Your task to perform on an android device: Clear the cart on target. Add "usb-b" to the cart on target, then select checkout. Image 0: 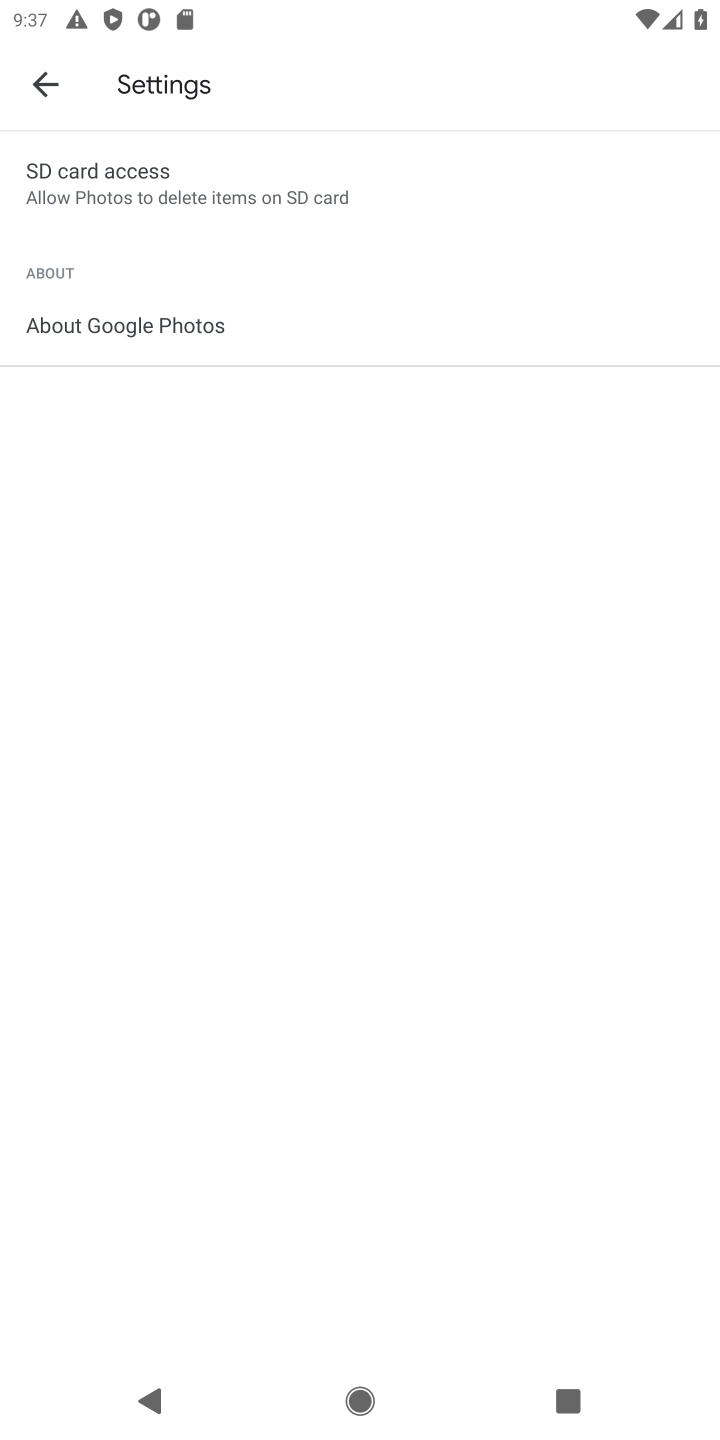
Step 0: press back button
Your task to perform on an android device: Clear the cart on target. Add "usb-b" to the cart on target, then select checkout. Image 1: 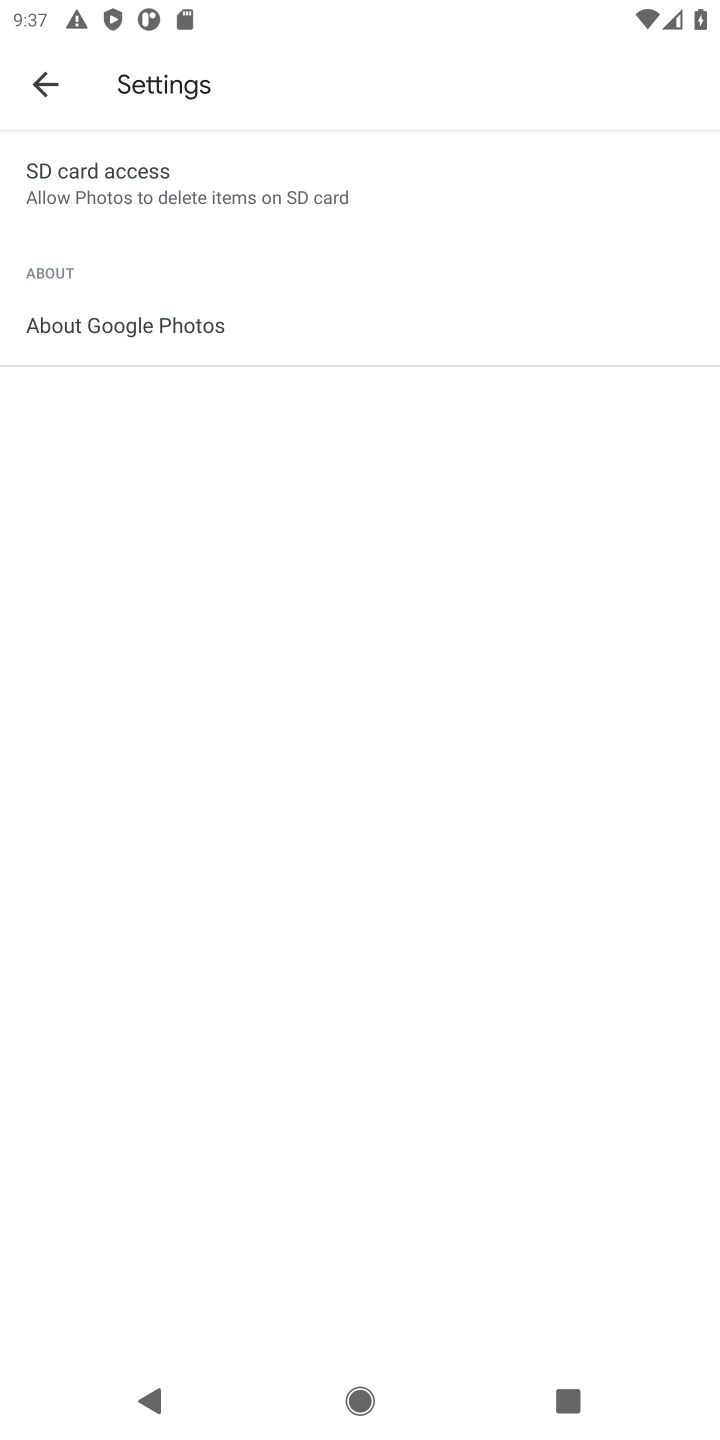
Step 1: press home button
Your task to perform on an android device: Clear the cart on target. Add "usb-b" to the cart on target, then select checkout. Image 2: 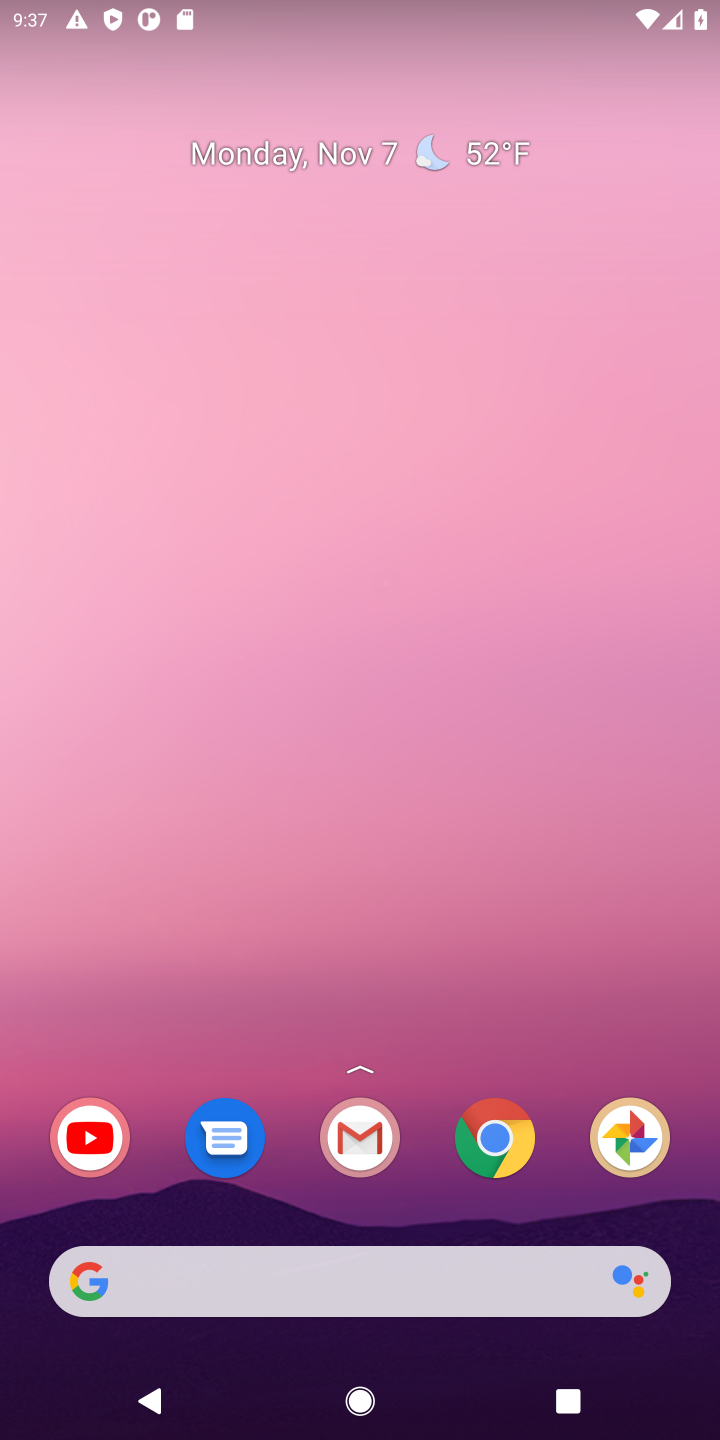
Step 2: click (511, 1145)
Your task to perform on an android device: Clear the cart on target. Add "usb-b" to the cart on target, then select checkout. Image 3: 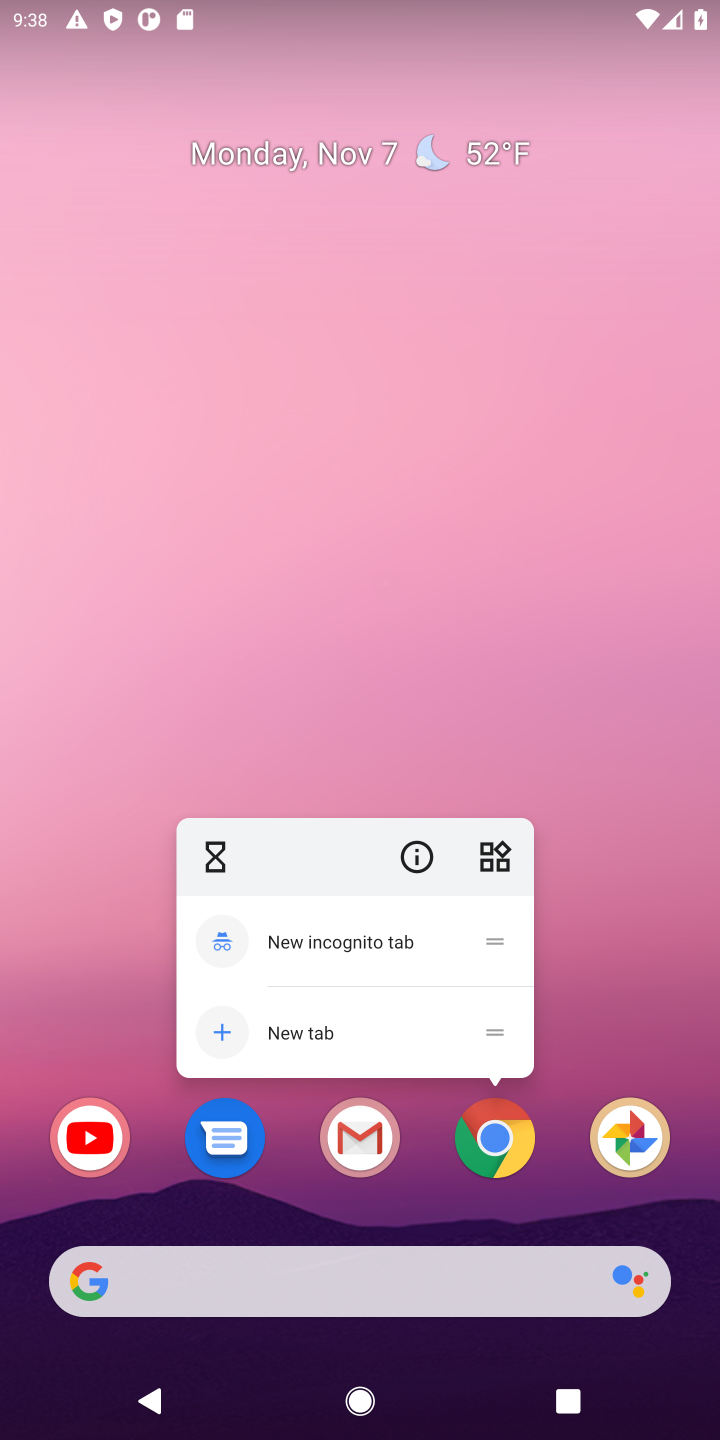
Step 3: click (501, 1147)
Your task to perform on an android device: Clear the cart on target. Add "usb-b" to the cart on target, then select checkout. Image 4: 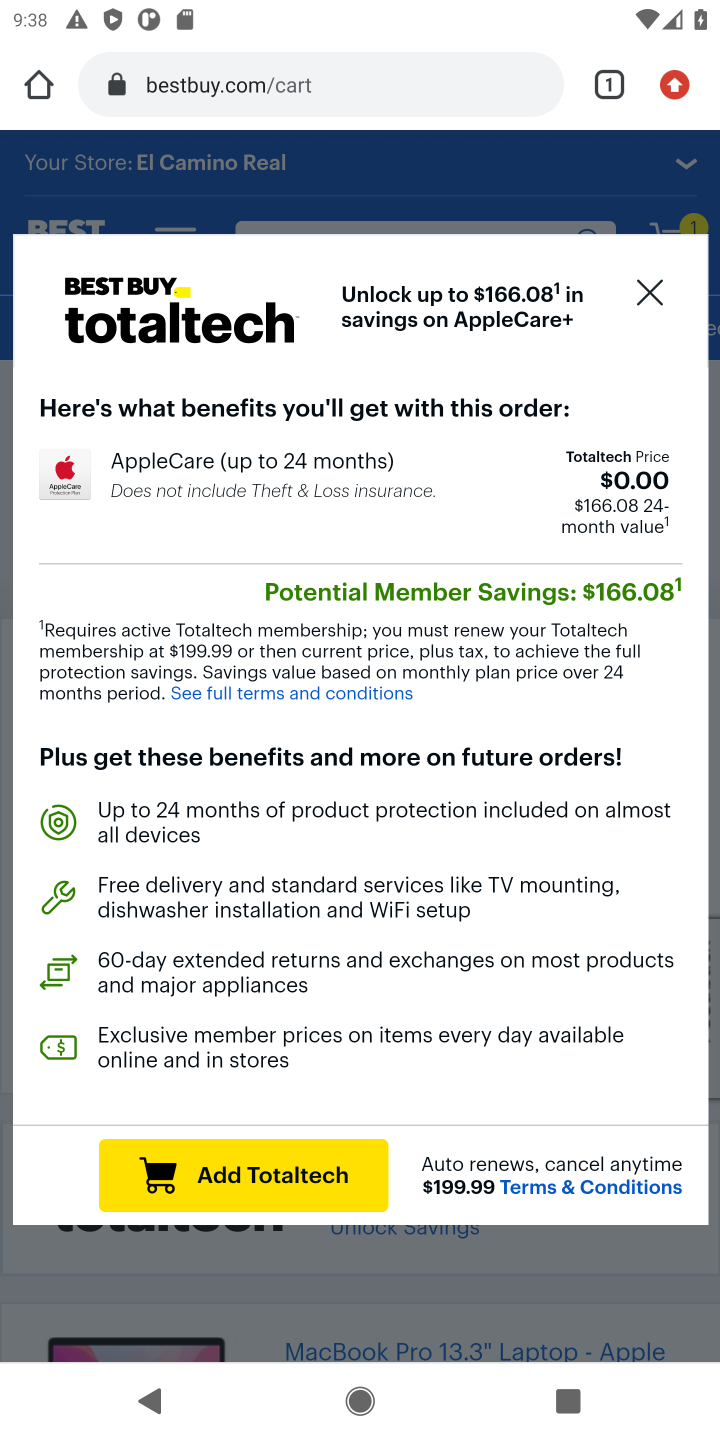
Step 4: click (206, 91)
Your task to perform on an android device: Clear the cart on target. Add "usb-b" to the cart on target, then select checkout. Image 5: 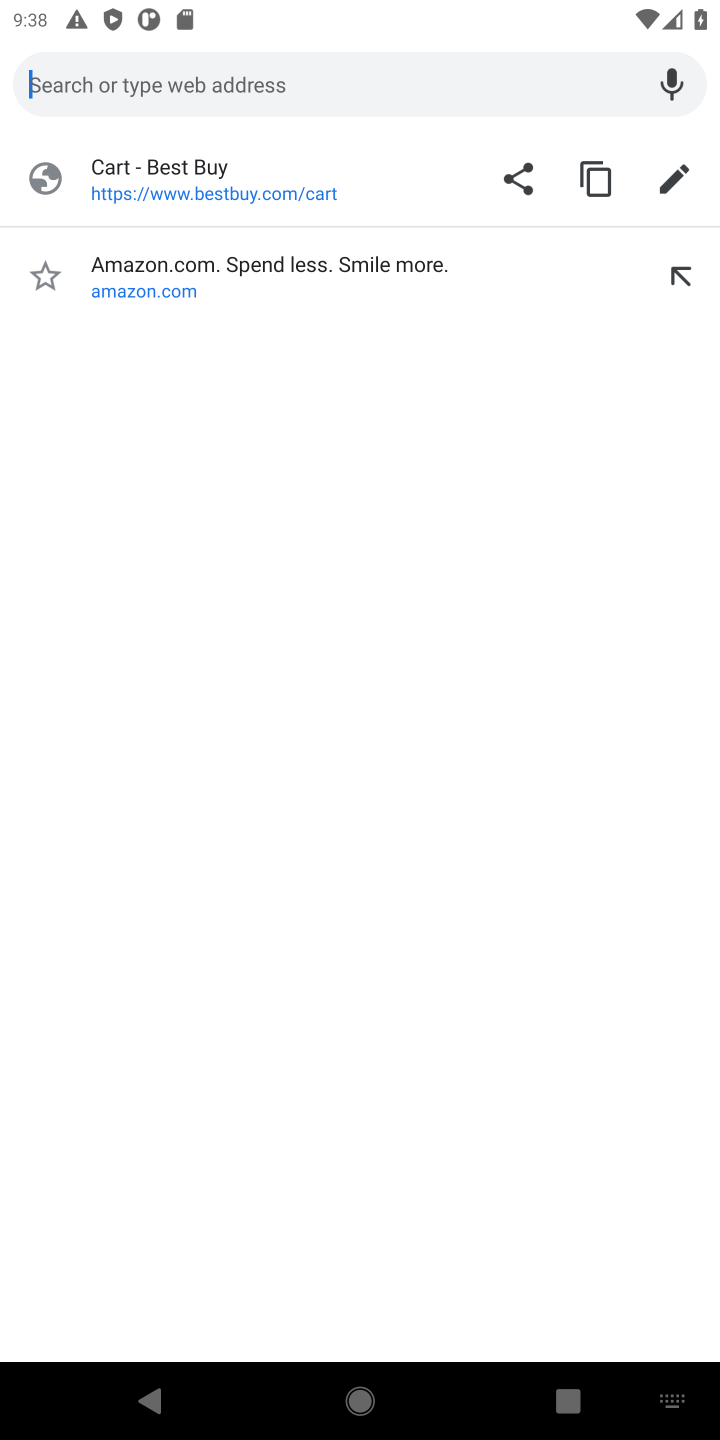
Step 5: type "target"
Your task to perform on an android device: Clear the cart on target. Add "usb-b" to the cart on target, then select checkout. Image 6: 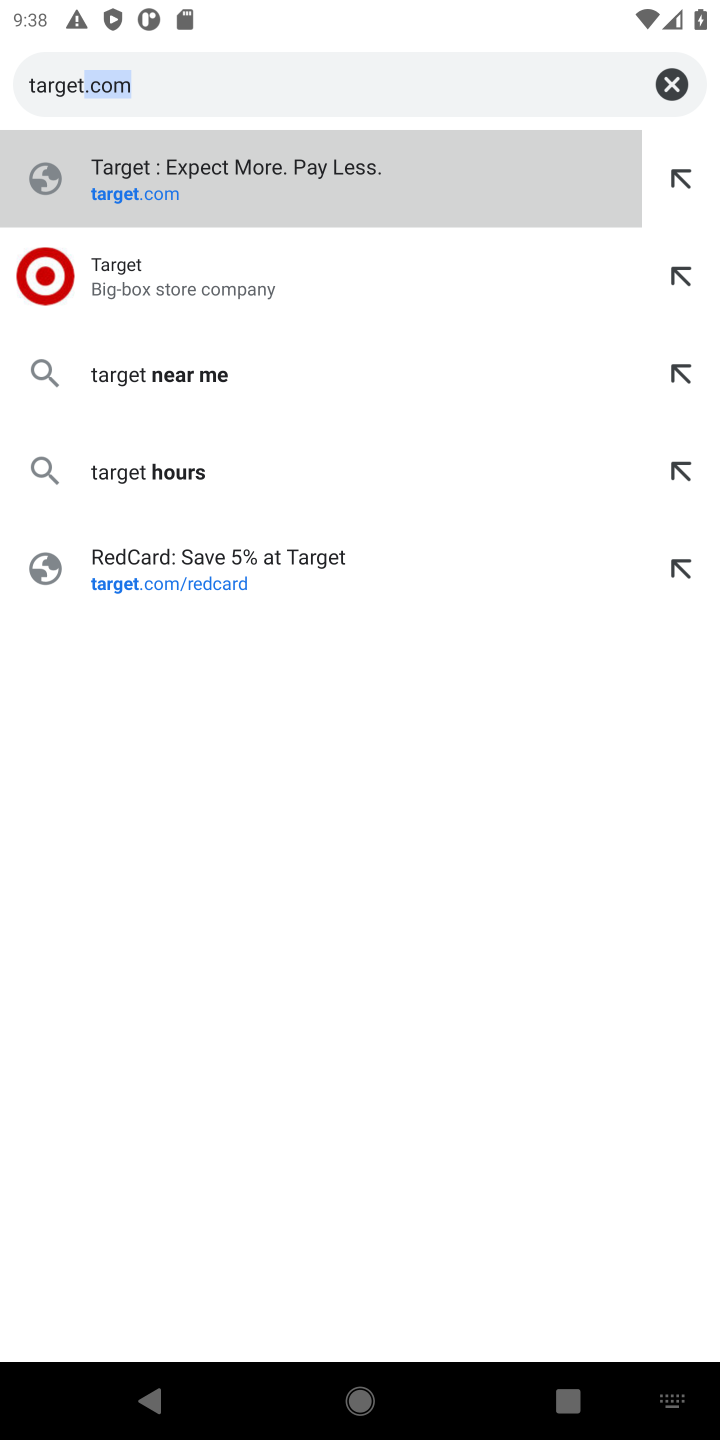
Step 6: click (138, 280)
Your task to perform on an android device: Clear the cart on target. Add "usb-b" to the cart on target, then select checkout. Image 7: 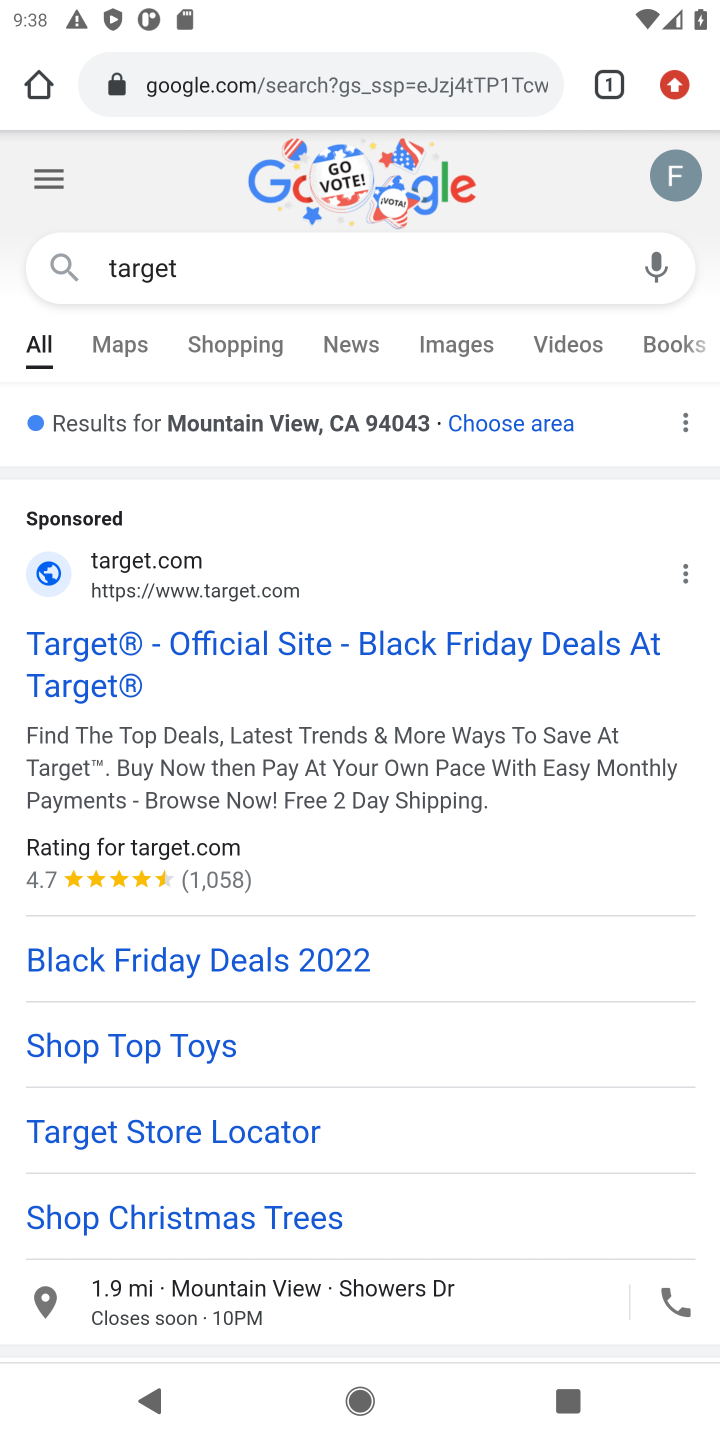
Step 7: click (213, 643)
Your task to perform on an android device: Clear the cart on target. Add "usb-b" to the cart on target, then select checkout. Image 8: 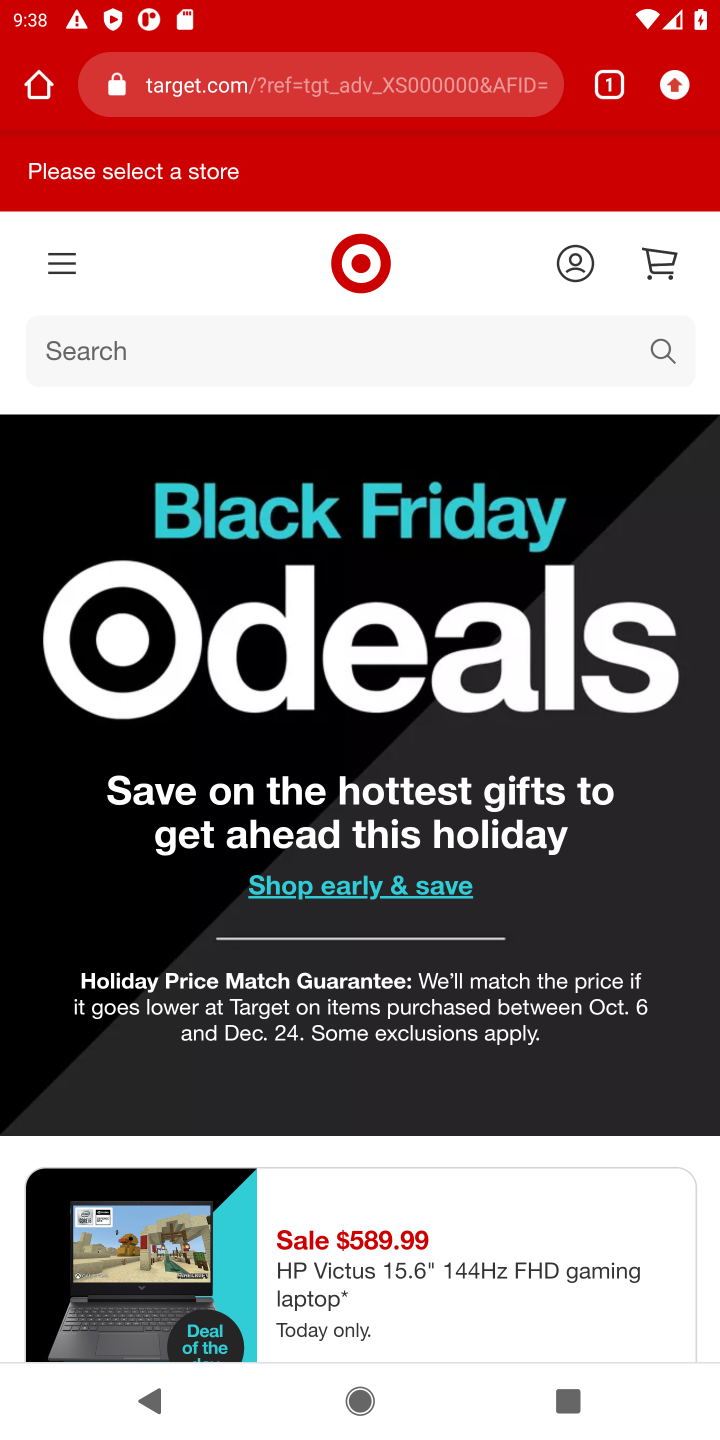
Step 8: click (651, 353)
Your task to perform on an android device: Clear the cart on target. Add "usb-b" to the cart on target, then select checkout. Image 9: 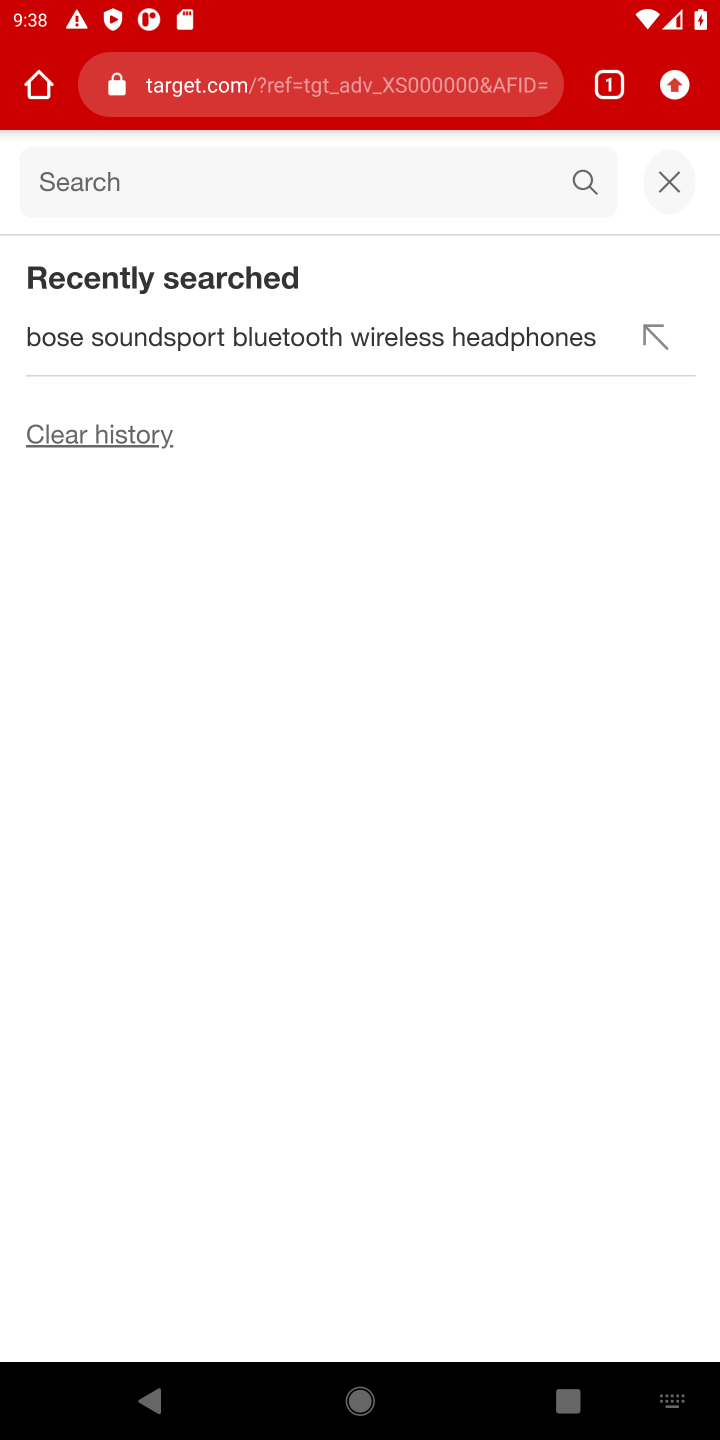
Step 9: type "usb b "
Your task to perform on an android device: Clear the cart on target. Add "usb-b" to the cart on target, then select checkout. Image 10: 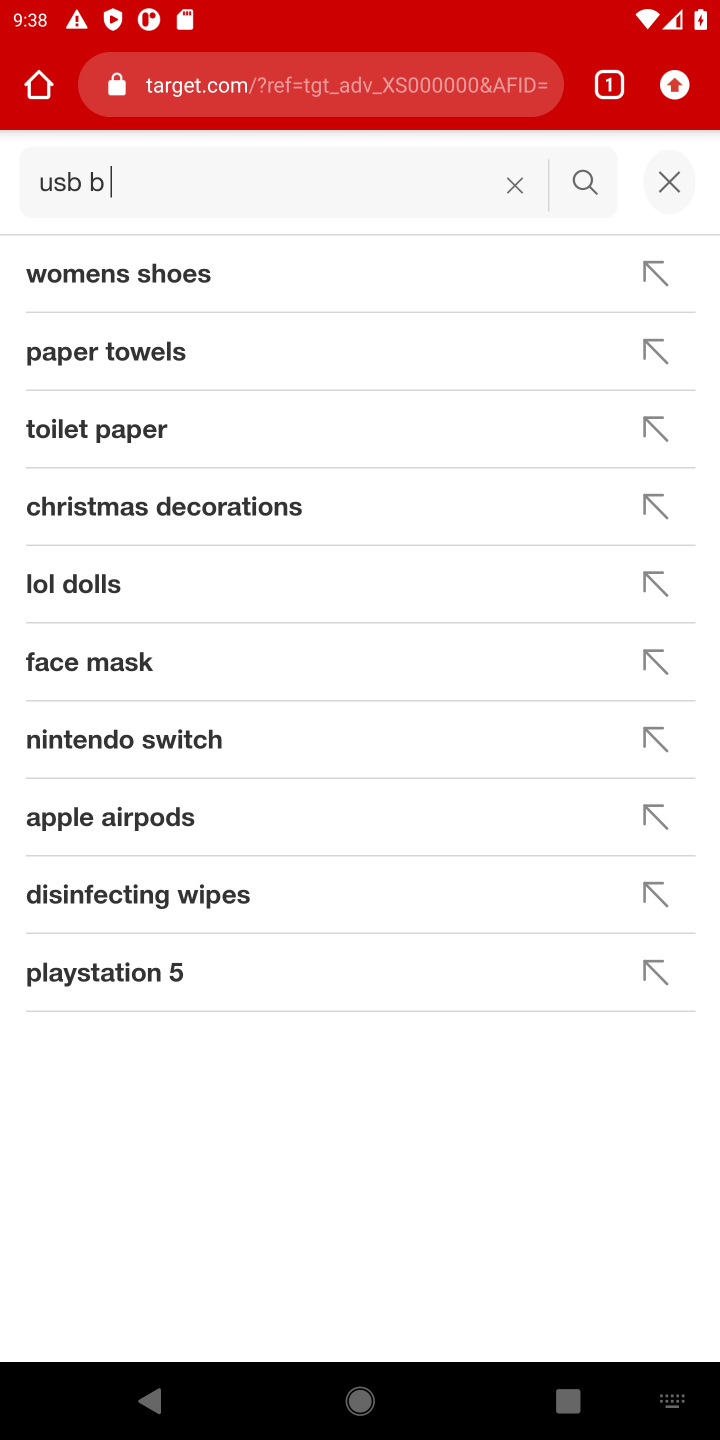
Step 10: type ""
Your task to perform on an android device: Clear the cart on target. Add "usb-b" to the cart on target, then select checkout. Image 11: 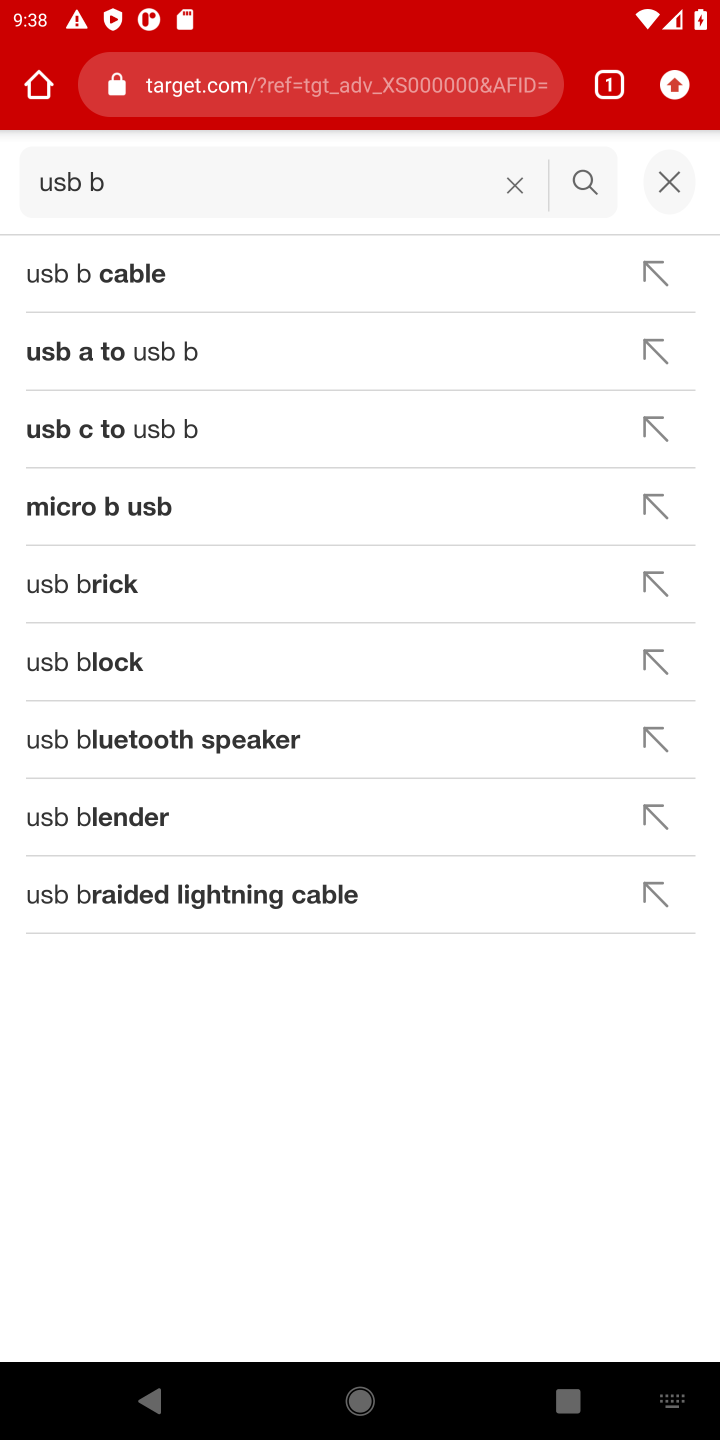
Step 11: click (61, 263)
Your task to perform on an android device: Clear the cart on target. Add "usb-b" to the cart on target, then select checkout. Image 12: 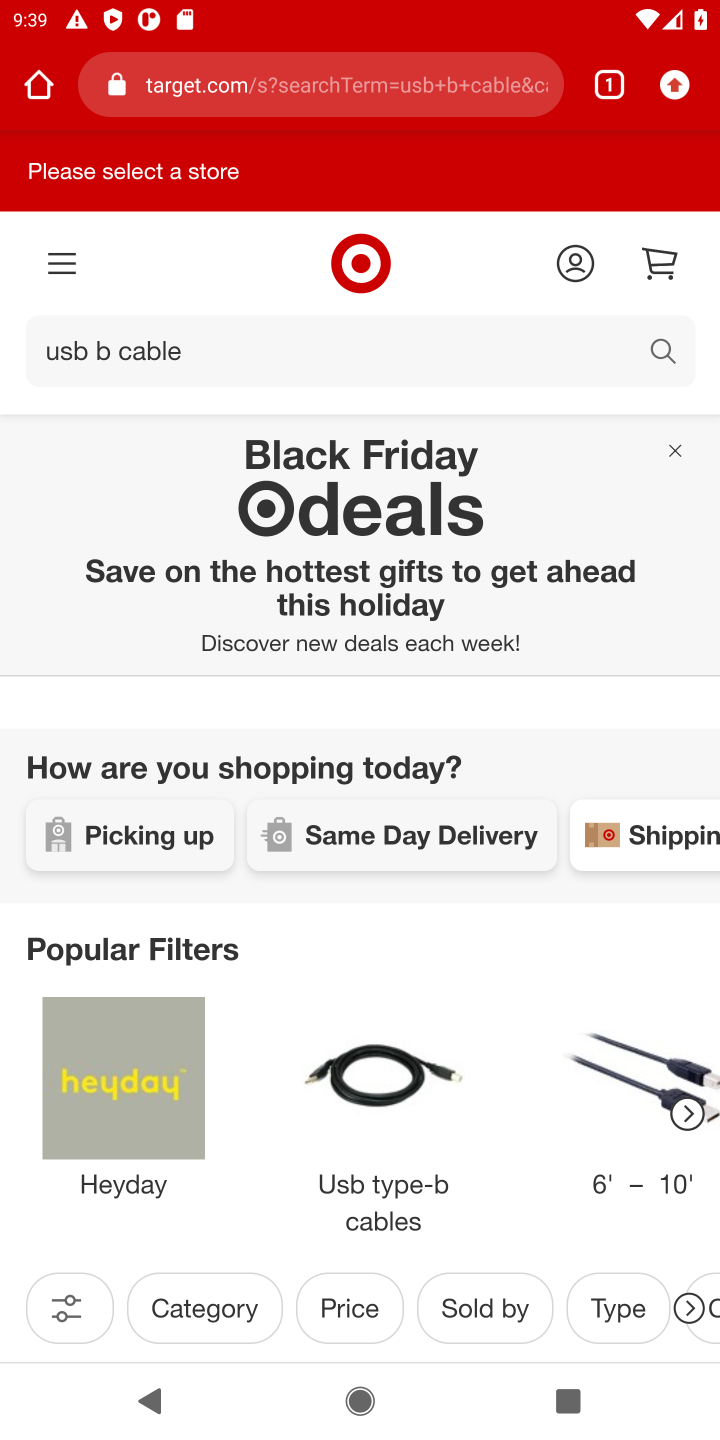
Step 12: drag from (289, 898) to (248, 291)
Your task to perform on an android device: Clear the cart on target. Add "usb-b" to the cart on target, then select checkout. Image 13: 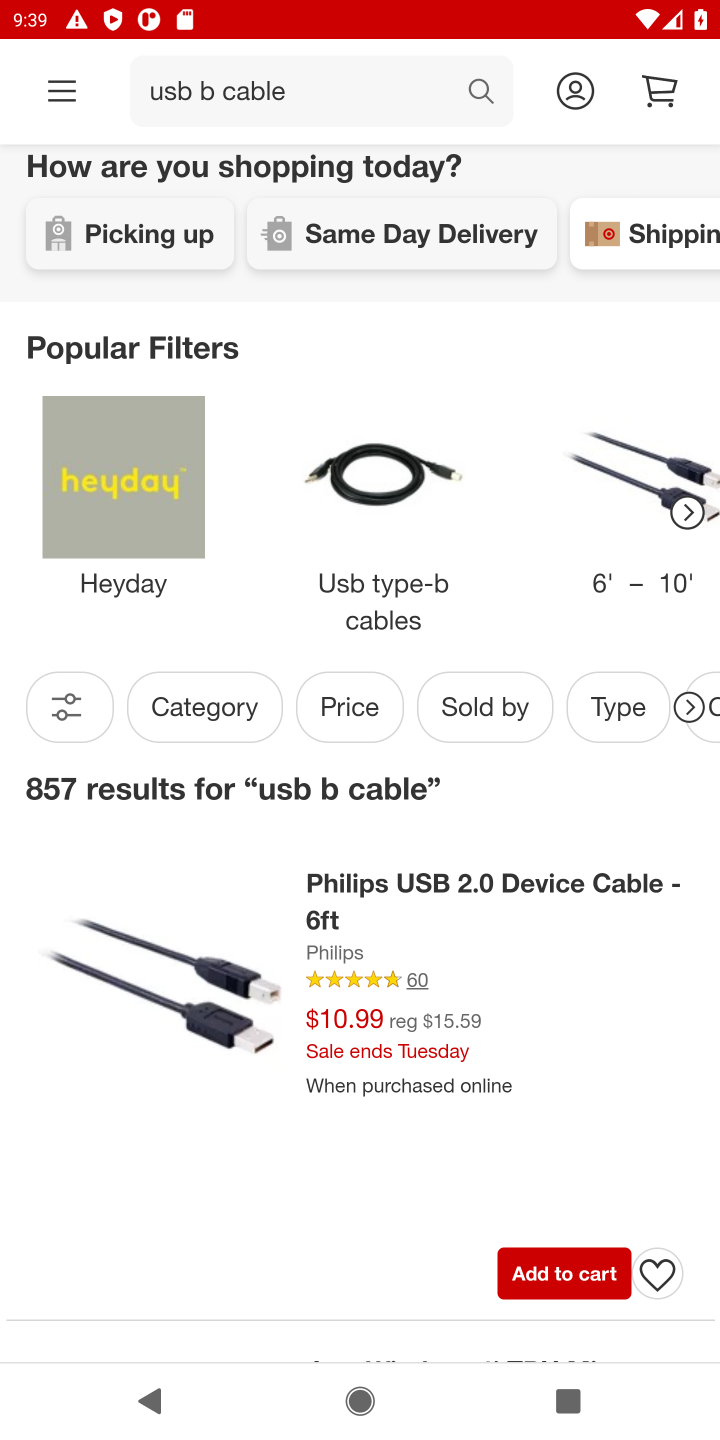
Step 13: drag from (323, 1053) to (355, 346)
Your task to perform on an android device: Clear the cart on target. Add "usb-b" to the cart on target, then select checkout. Image 14: 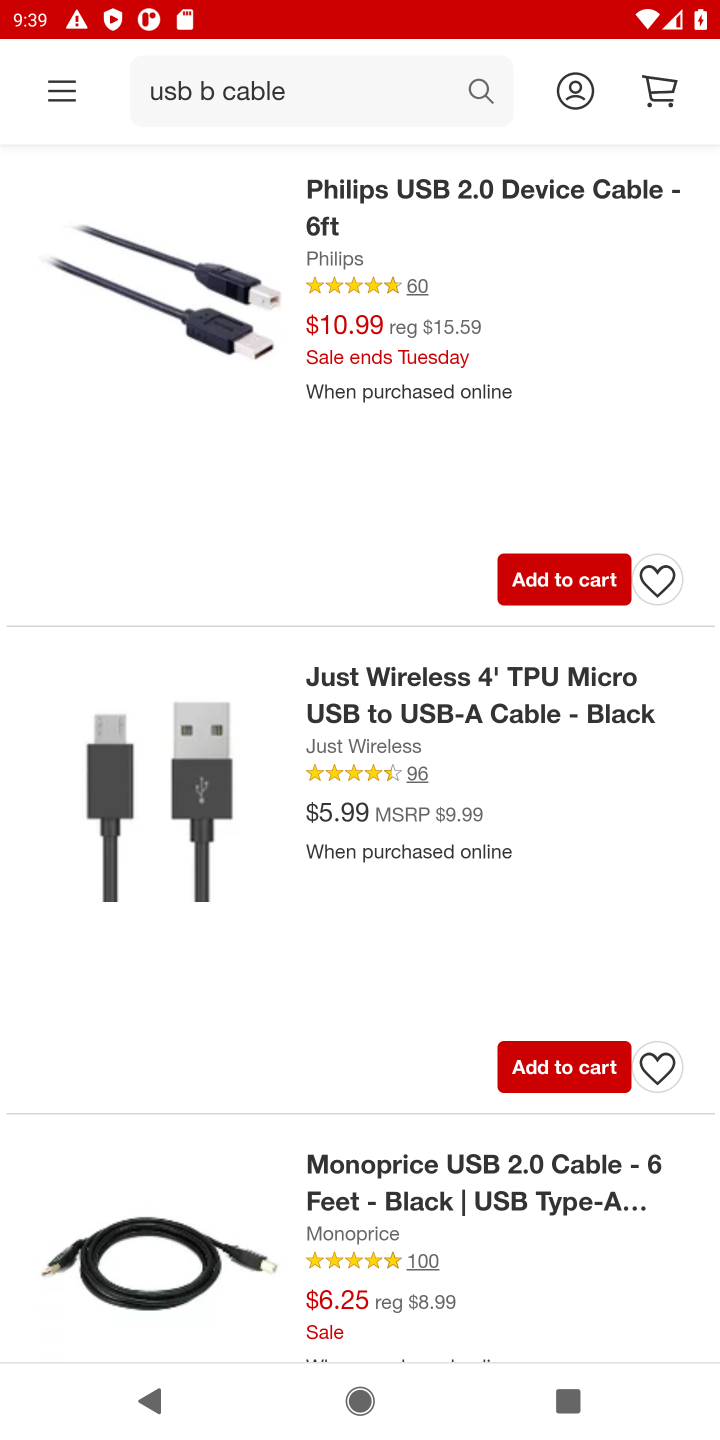
Step 14: click (377, 1171)
Your task to perform on an android device: Clear the cart on target. Add "usb-b" to the cart on target, then select checkout. Image 15: 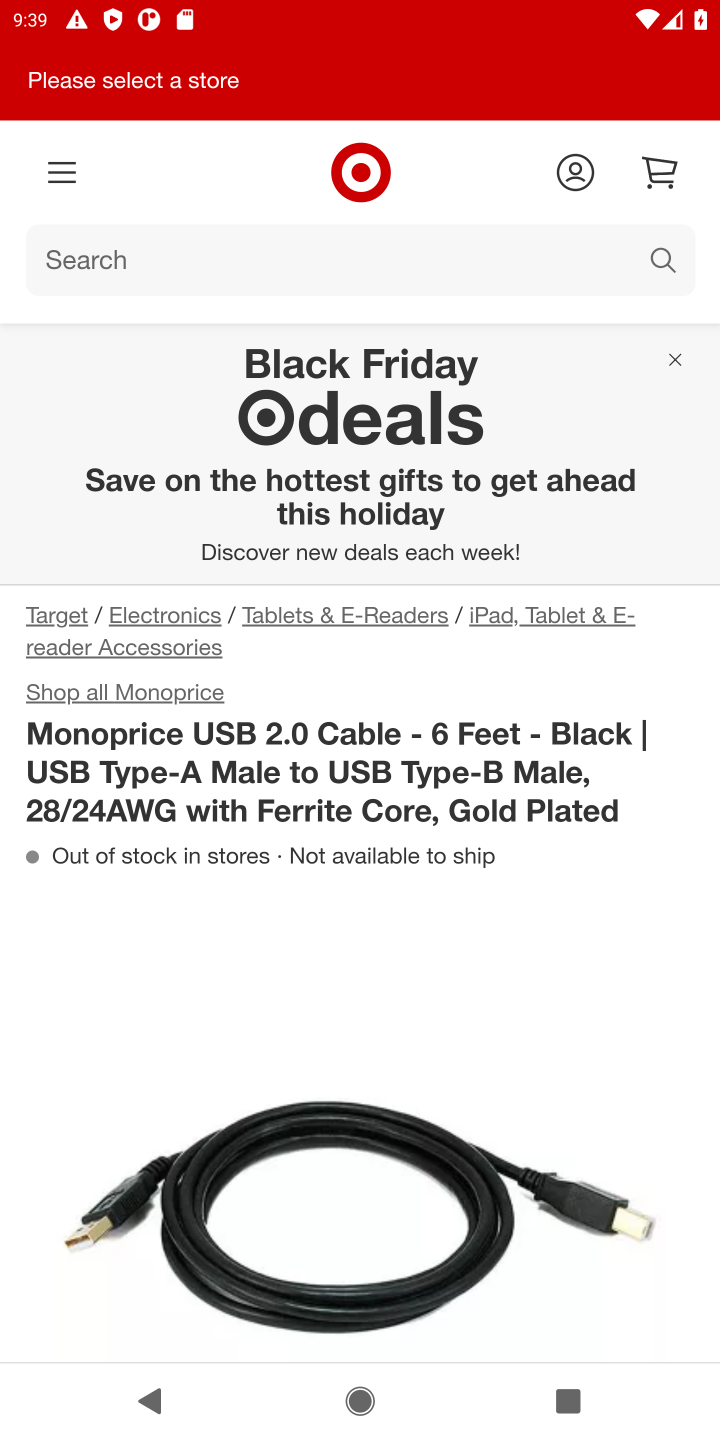
Step 15: drag from (303, 1031) to (348, 359)
Your task to perform on an android device: Clear the cart on target. Add "usb-b" to the cart on target, then select checkout. Image 16: 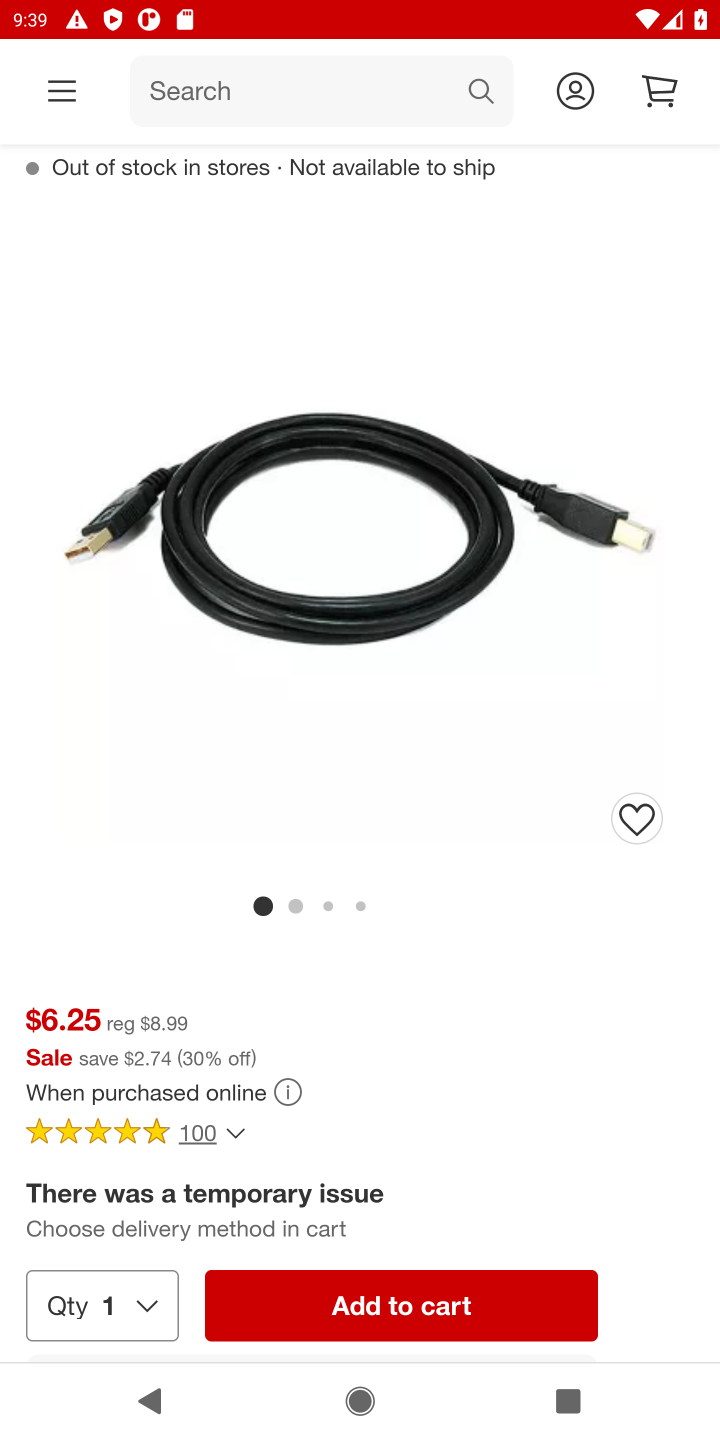
Step 16: click (529, 1291)
Your task to perform on an android device: Clear the cart on target. Add "usb-b" to the cart on target, then select checkout. Image 17: 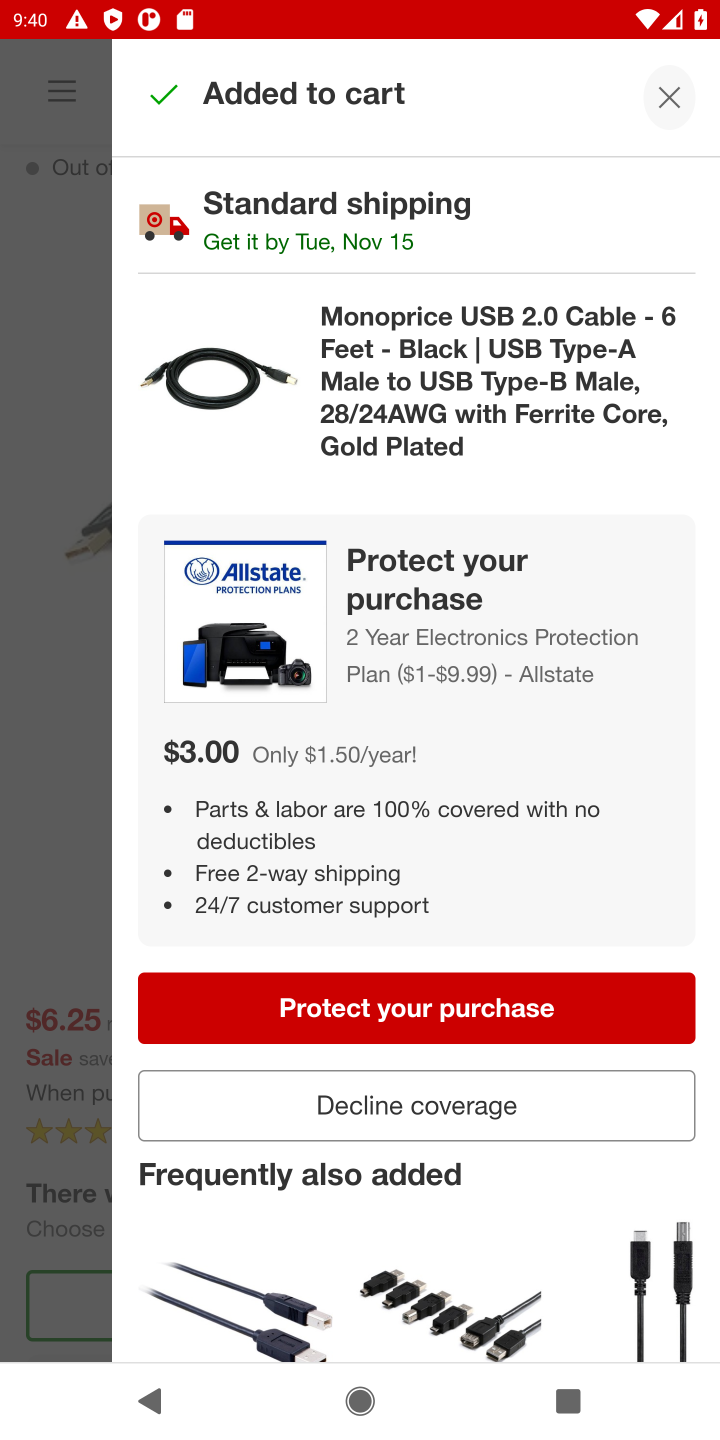
Step 17: click (361, 1004)
Your task to perform on an android device: Clear the cart on target. Add "usb-b" to the cart on target, then select checkout. Image 18: 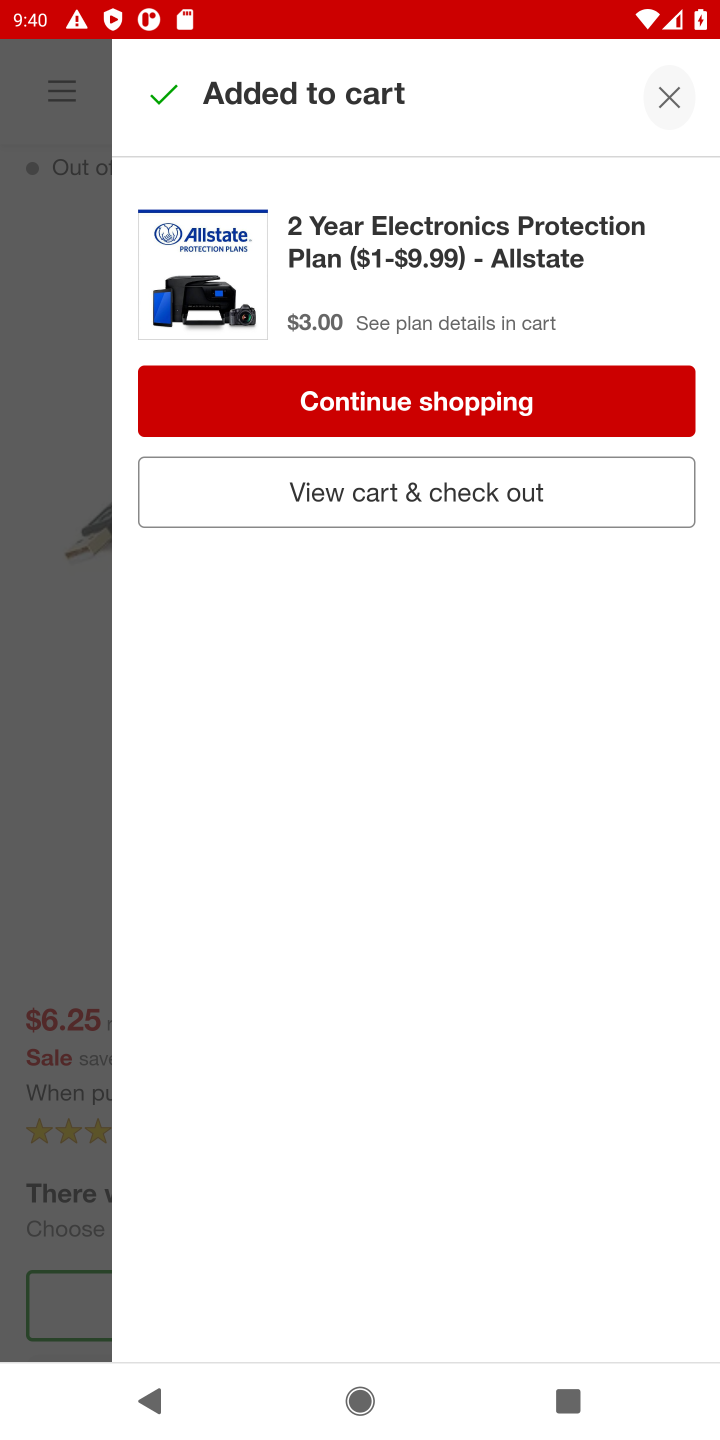
Step 18: click (382, 491)
Your task to perform on an android device: Clear the cart on target. Add "usb-b" to the cart on target, then select checkout. Image 19: 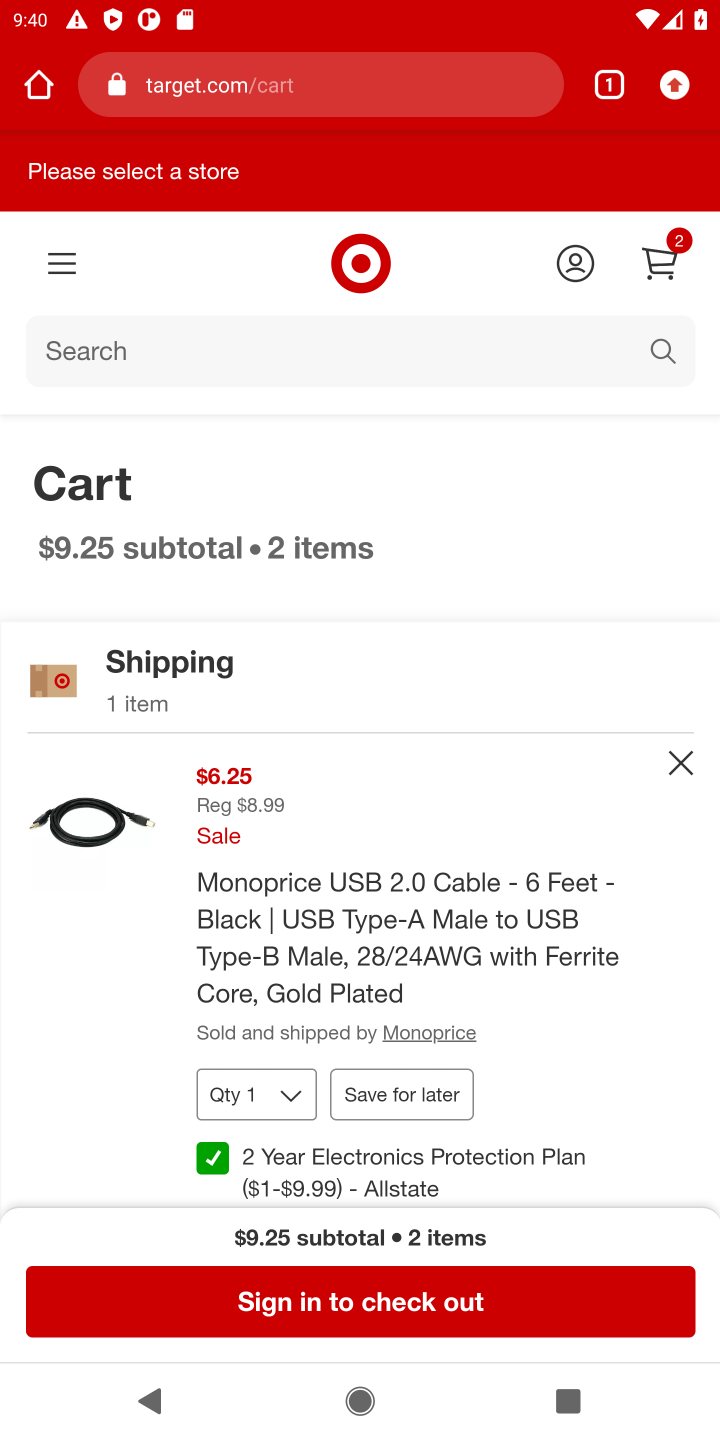
Step 19: click (414, 1316)
Your task to perform on an android device: Clear the cart on target. Add "usb-b" to the cart on target, then select checkout. Image 20: 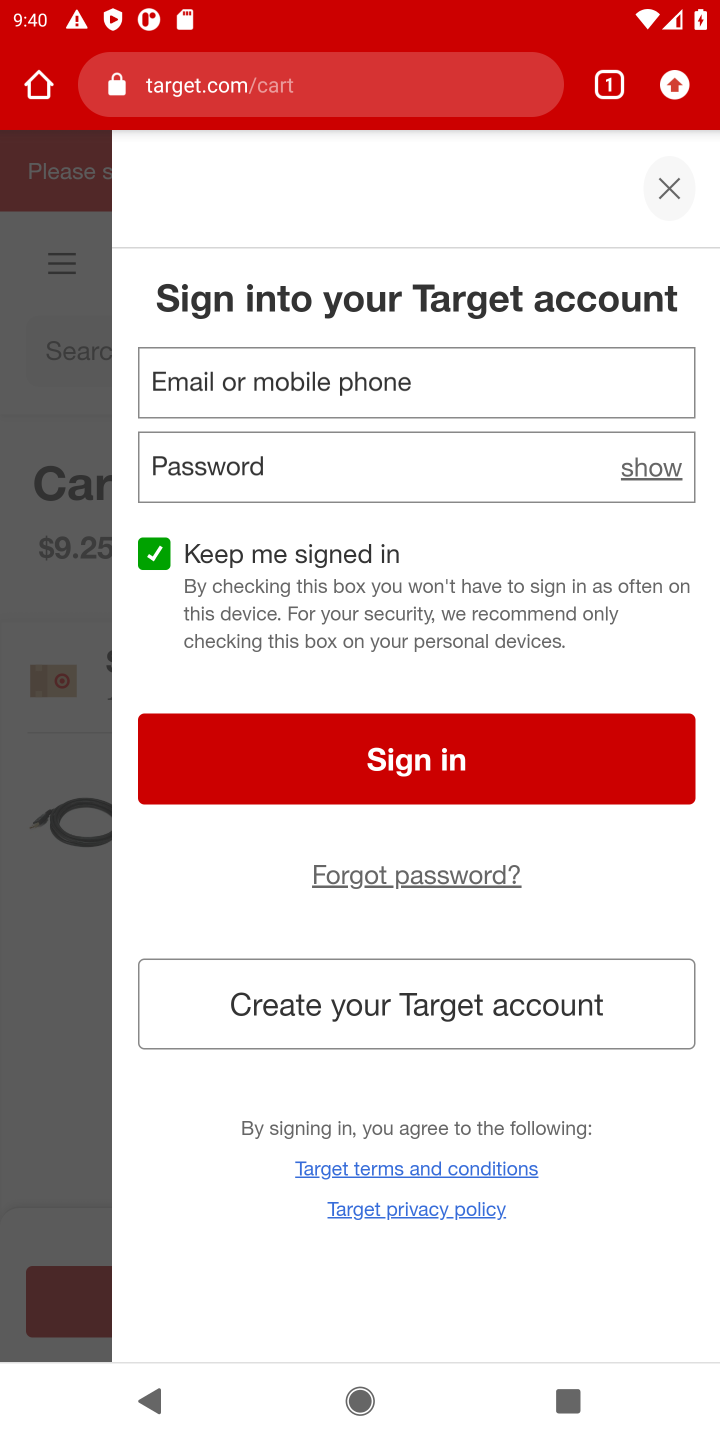
Step 20: task complete